Your task to perform on an android device: Show me recent news Image 0: 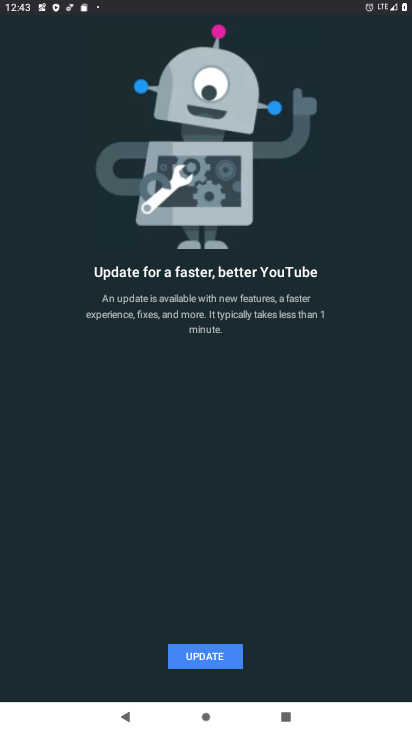
Step 0: press home button
Your task to perform on an android device: Show me recent news Image 1: 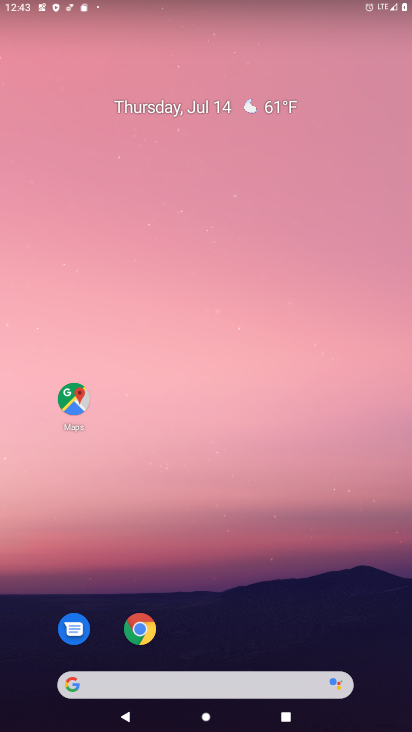
Step 1: click (12, 276)
Your task to perform on an android device: Show me recent news Image 2: 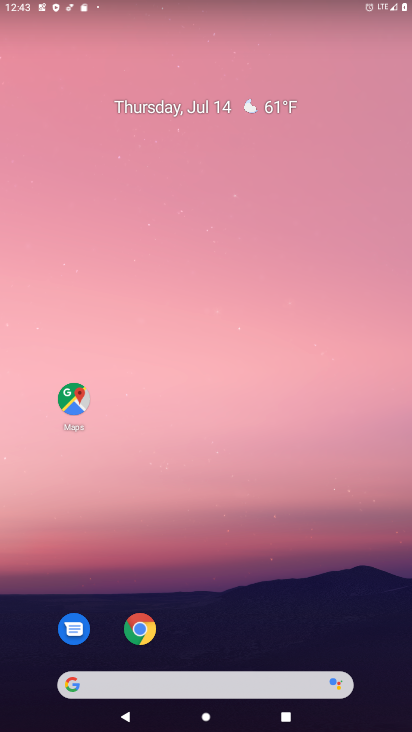
Step 2: drag from (12, 276) to (368, 528)
Your task to perform on an android device: Show me recent news Image 3: 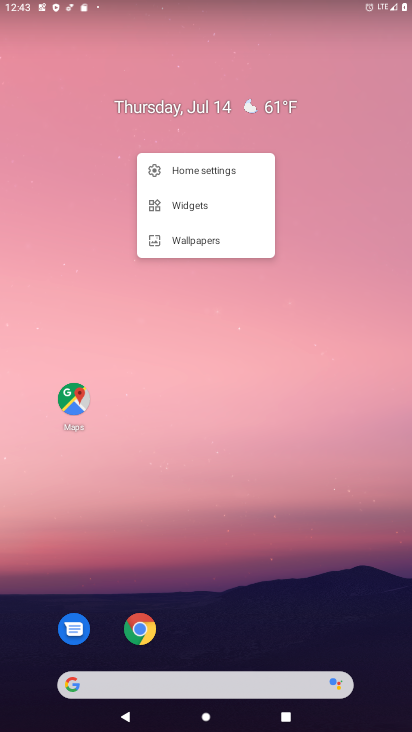
Step 3: click (20, 312)
Your task to perform on an android device: Show me recent news Image 4: 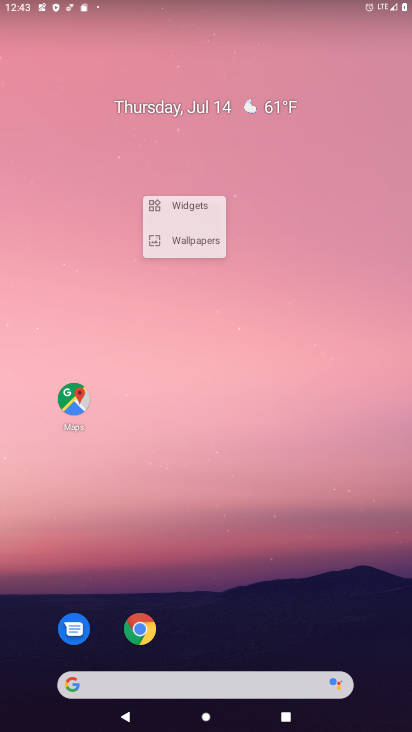
Step 4: drag from (20, 312) to (410, 400)
Your task to perform on an android device: Show me recent news Image 5: 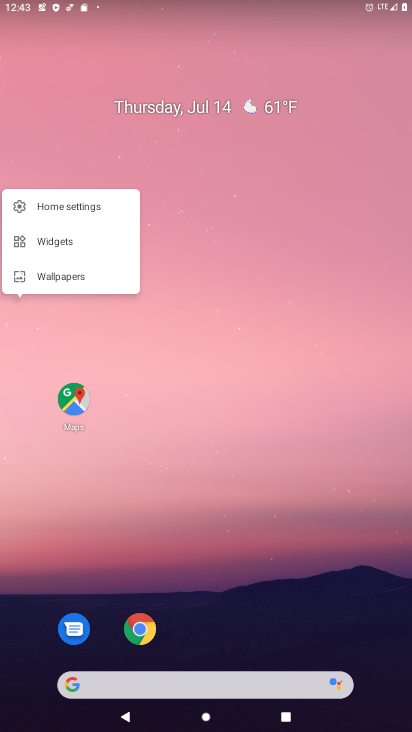
Step 5: click (13, 332)
Your task to perform on an android device: Show me recent news Image 6: 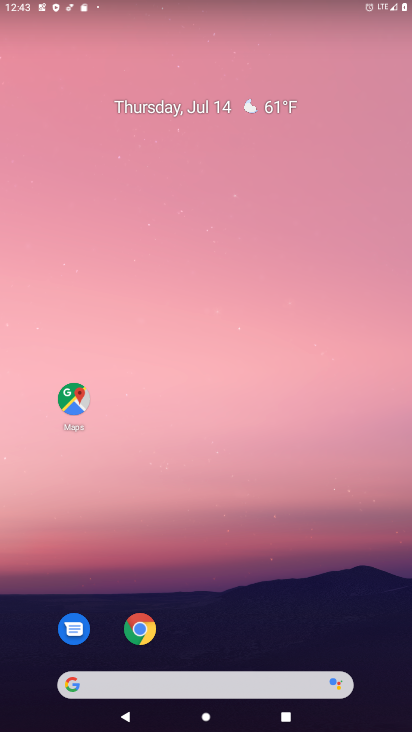
Step 6: task complete